Your task to perform on an android device: When is my next meeting? Image 0: 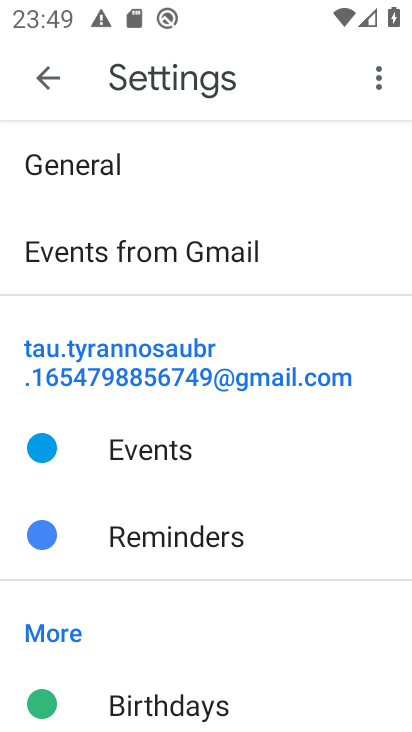
Step 0: press home button
Your task to perform on an android device: When is my next meeting? Image 1: 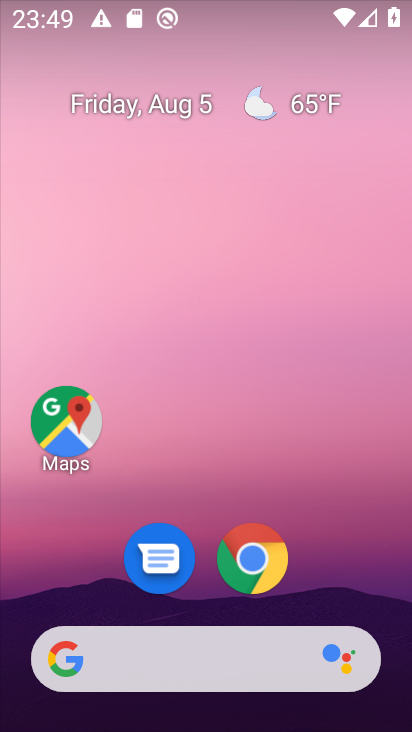
Step 1: drag from (353, 569) to (373, 211)
Your task to perform on an android device: When is my next meeting? Image 2: 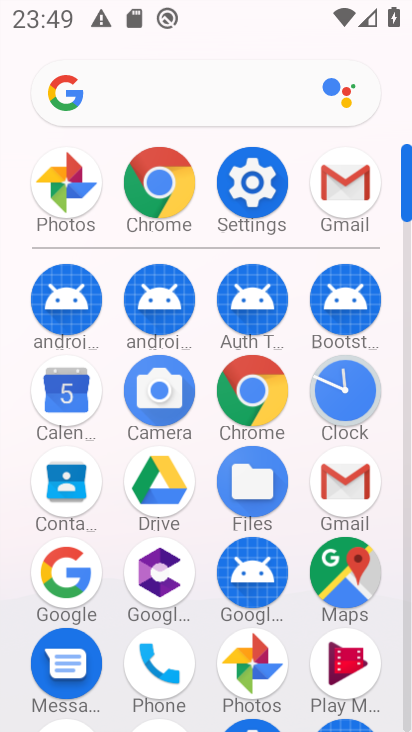
Step 2: click (55, 407)
Your task to perform on an android device: When is my next meeting? Image 3: 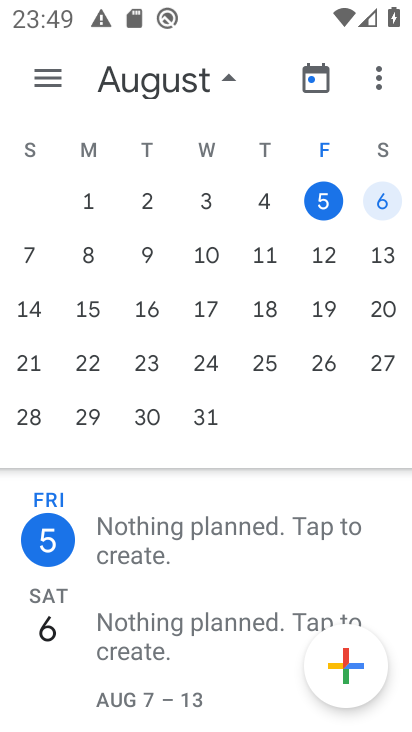
Step 3: task complete